Your task to perform on an android device: turn on the 12-hour format for clock Image 0: 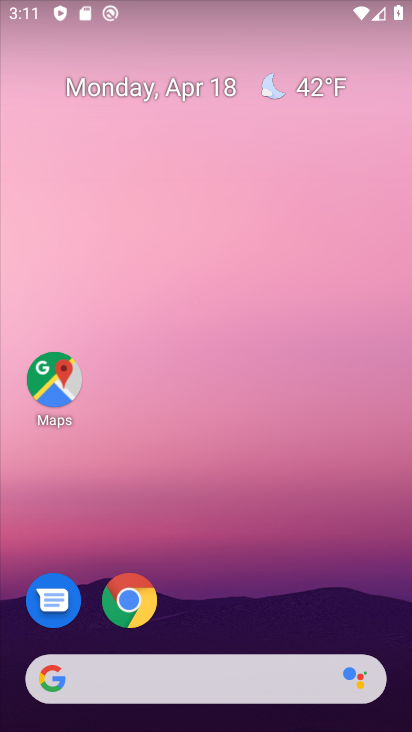
Step 0: drag from (184, 677) to (340, 174)
Your task to perform on an android device: turn on the 12-hour format for clock Image 1: 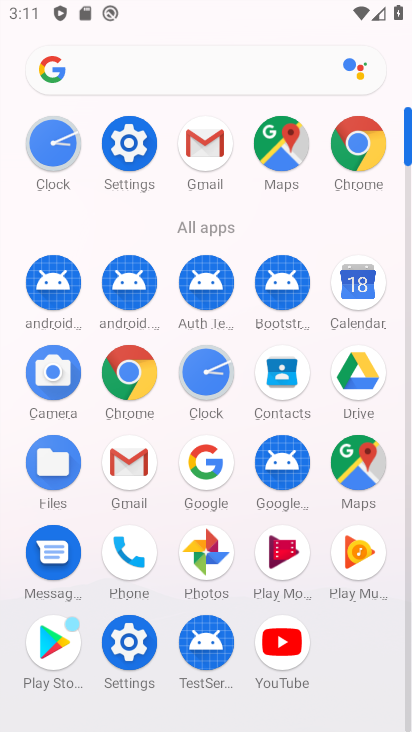
Step 1: click (53, 150)
Your task to perform on an android device: turn on the 12-hour format for clock Image 2: 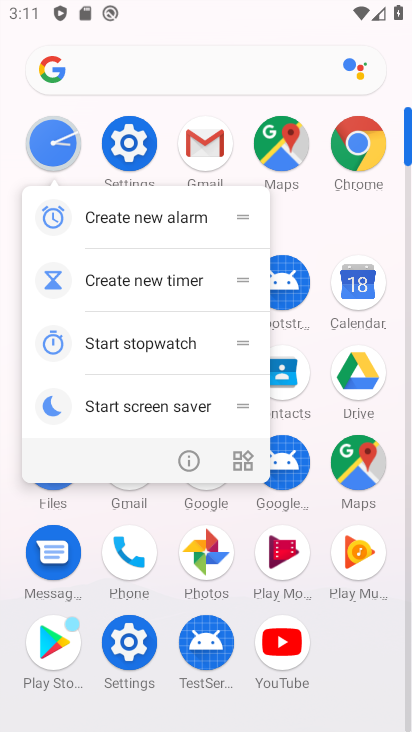
Step 2: click (51, 150)
Your task to perform on an android device: turn on the 12-hour format for clock Image 3: 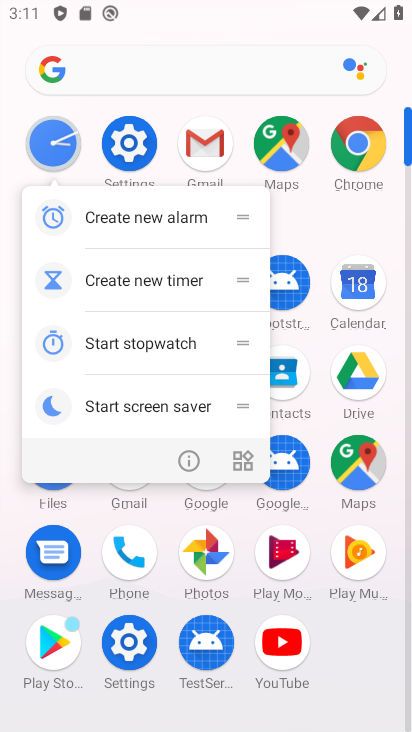
Step 3: click (48, 148)
Your task to perform on an android device: turn on the 12-hour format for clock Image 4: 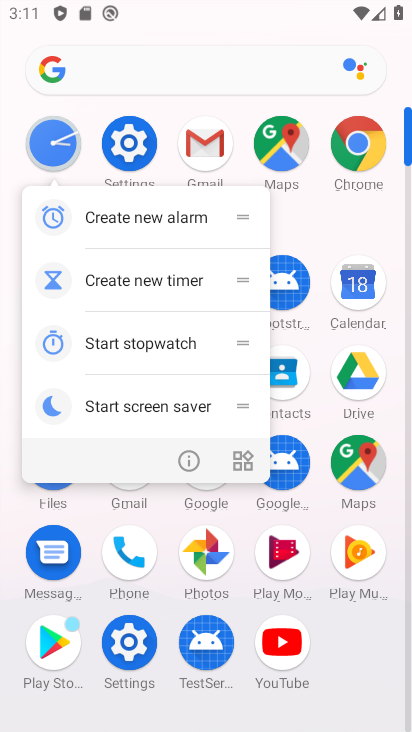
Step 4: click (53, 148)
Your task to perform on an android device: turn on the 12-hour format for clock Image 5: 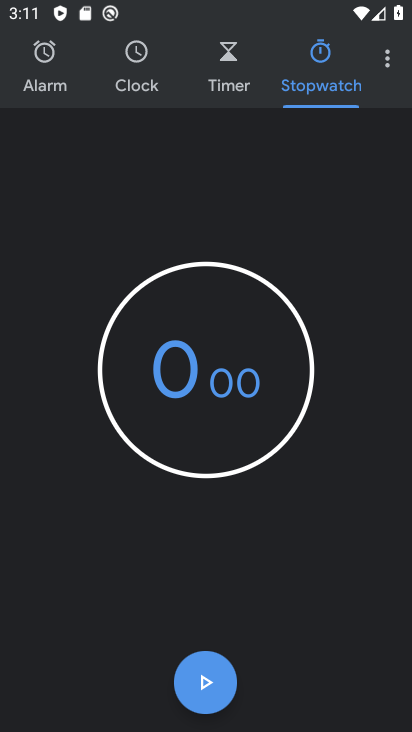
Step 5: click (386, 61)
Your task to perform on an android device: turn on the 12-hour format for clock Image 6: 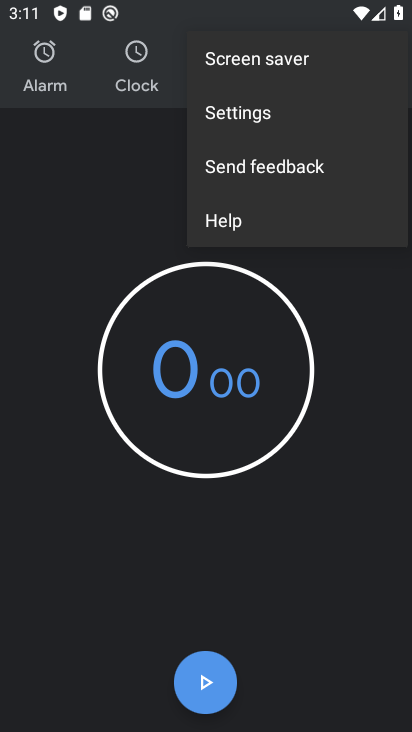
Step 6: click (249, 112)
Your task to perform on an android device: turn on the 12-hour format for clock Image 7: 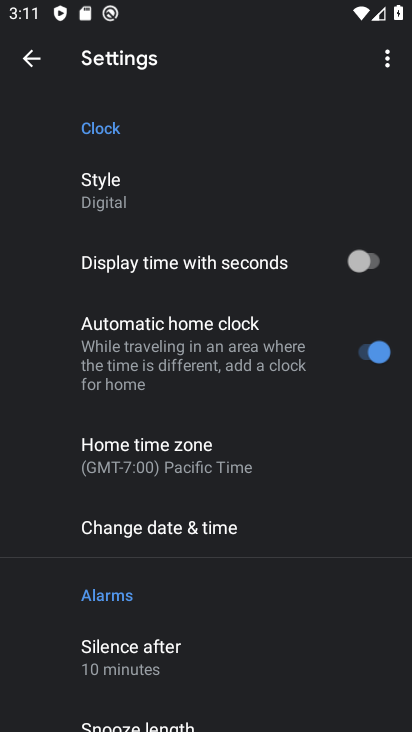
Step 7: click (198, 536)
Your task to perform on an android device: turn on the 12-hour format for clock Image 8: 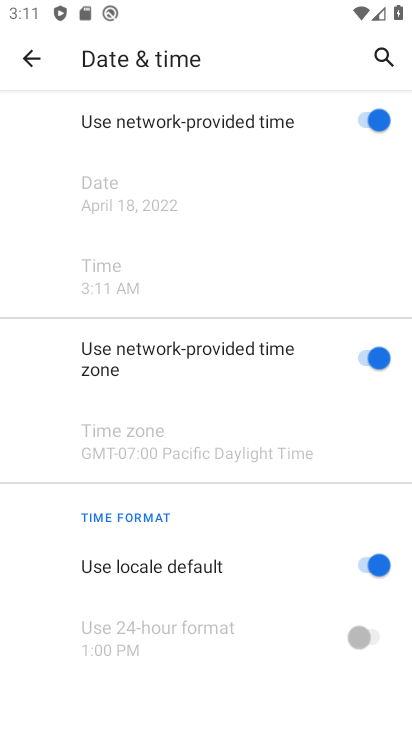
Step 8: task complete